Your task to perform on an android device: Clear the shopping cart on target. Image 0: 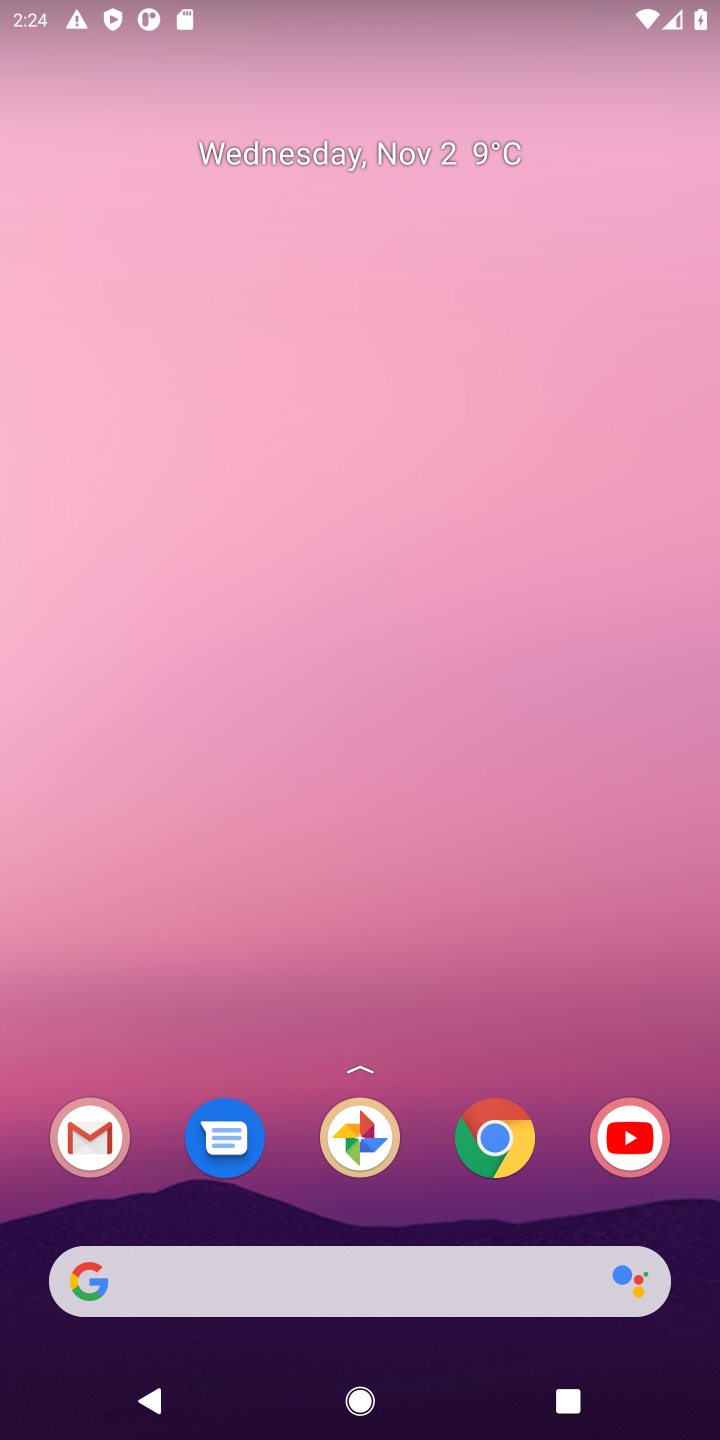
Step 0: click (498, 1149)
Your task to perform on an android device: Clear the shopping cart on target. Image 1: 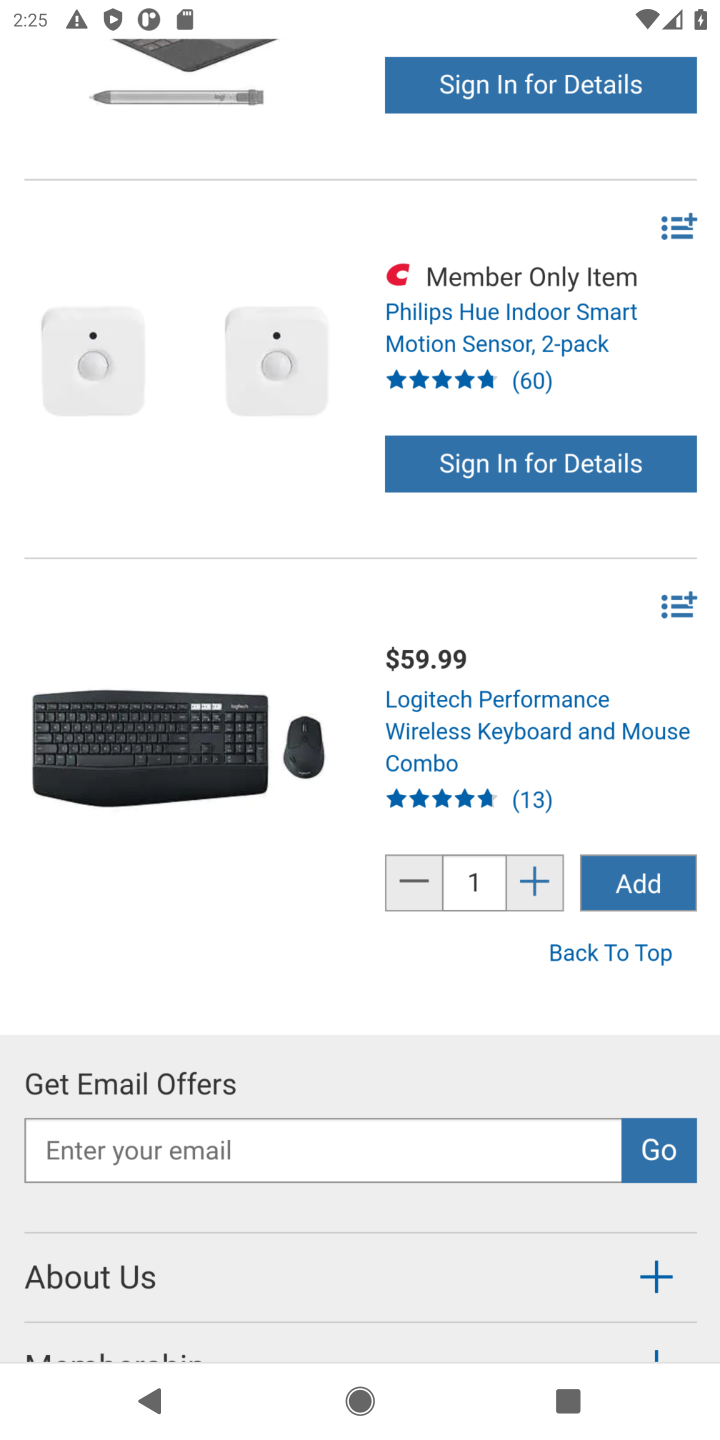
Step 1: click (498, 1149)
Your task to perform on an android device: Clear the shopping cart on target. Image 2: 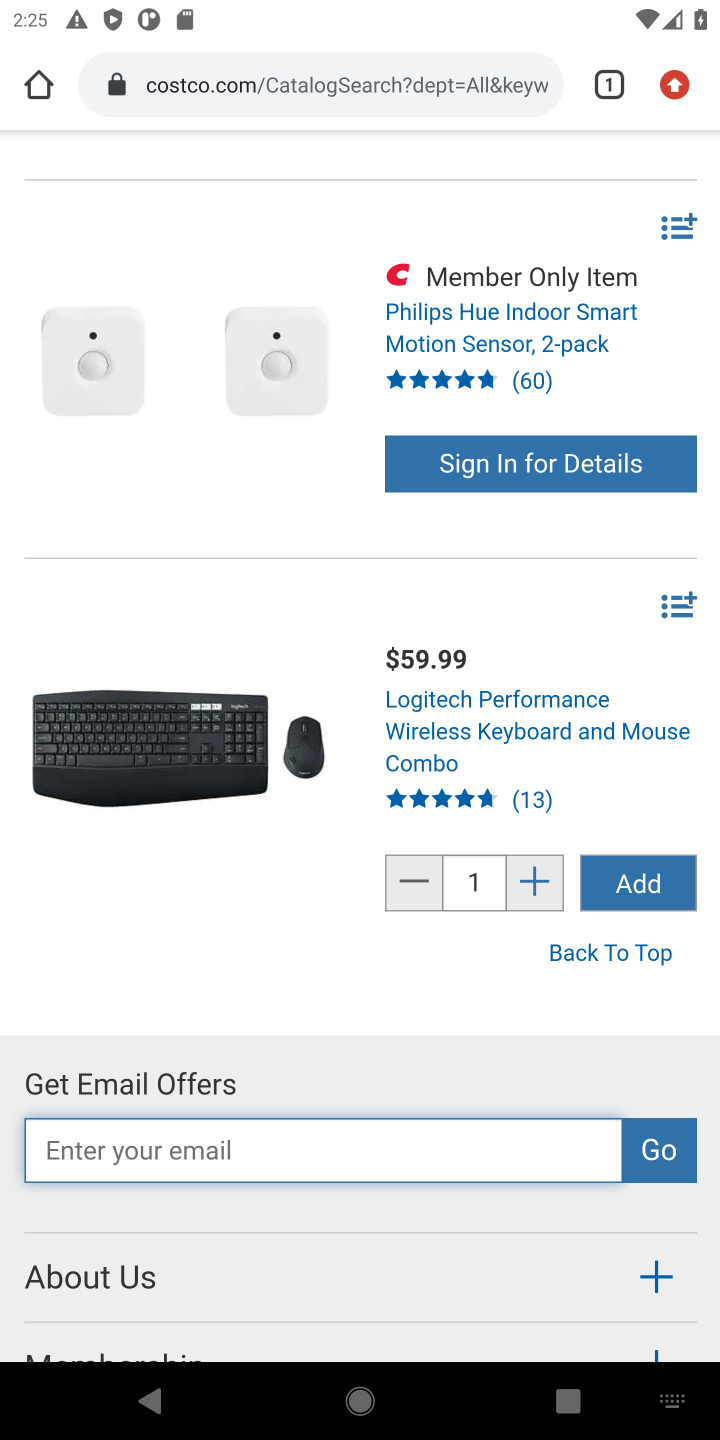
Step 2: click (348, 66)
Your task to perform on an android device: Clear the shopping cart on target. Image 3: 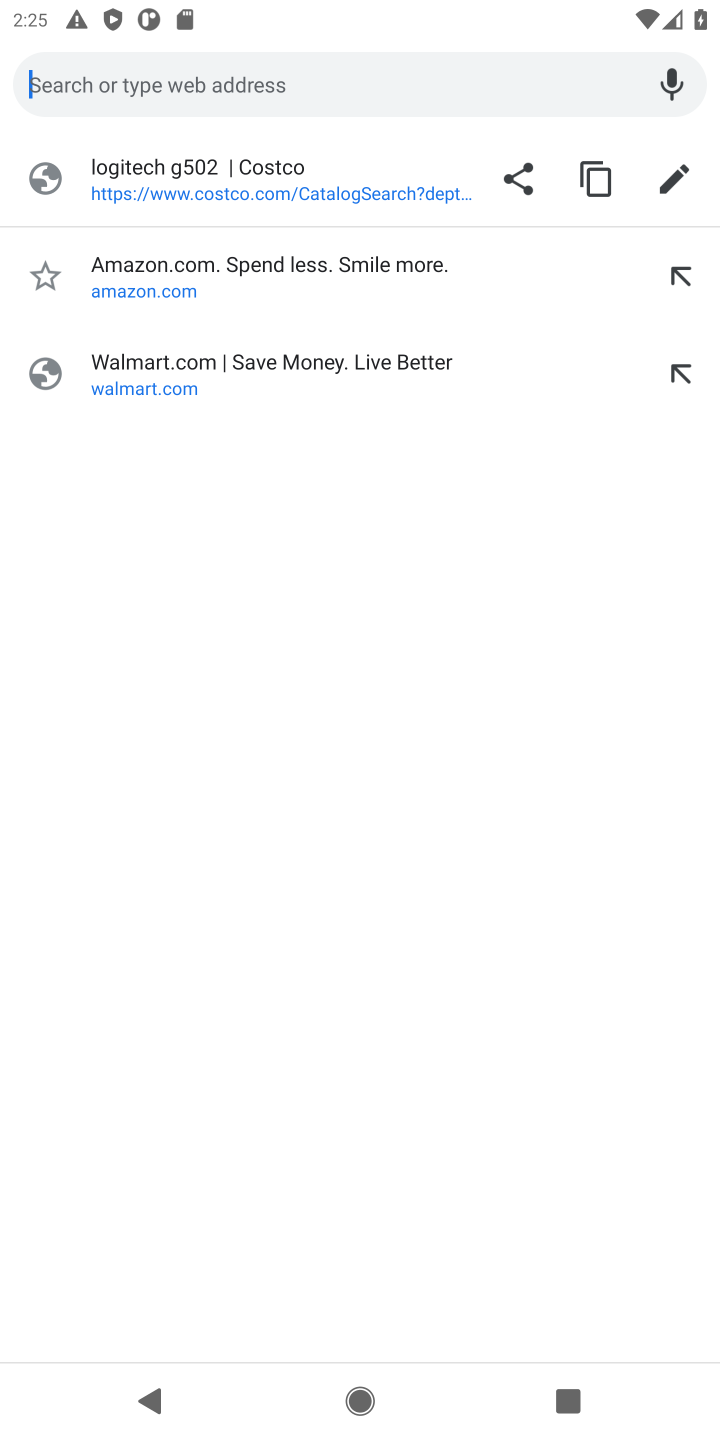
Step 3: type "target"
Your task to perform on an android device: Clear the shopping cart on target. Image 4: 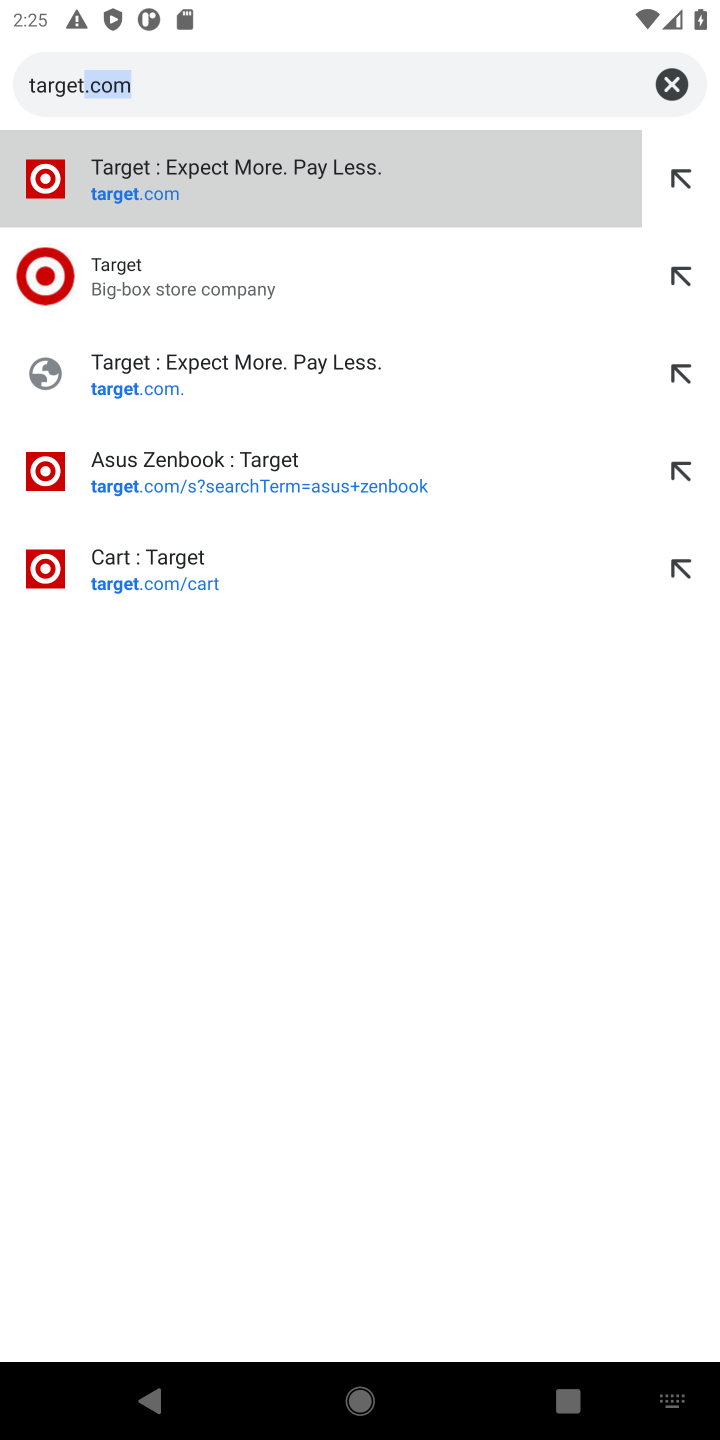
Step 4: click (246, 284)
Your task to perform on an android device: Clear the shopping cart on target. Image 5: 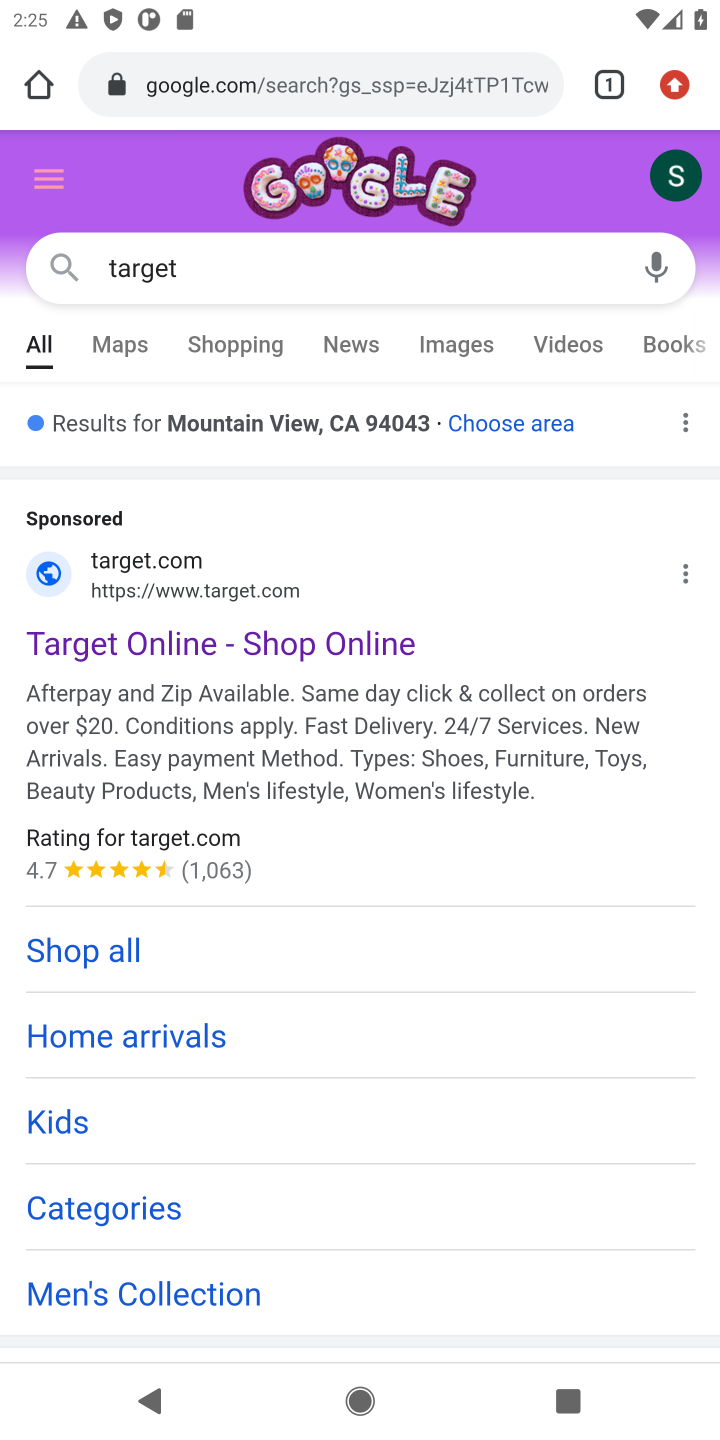
Step 5: click (200, 648)
Your task to perform on an android device: Clear the shopping cart on target. Image 6: 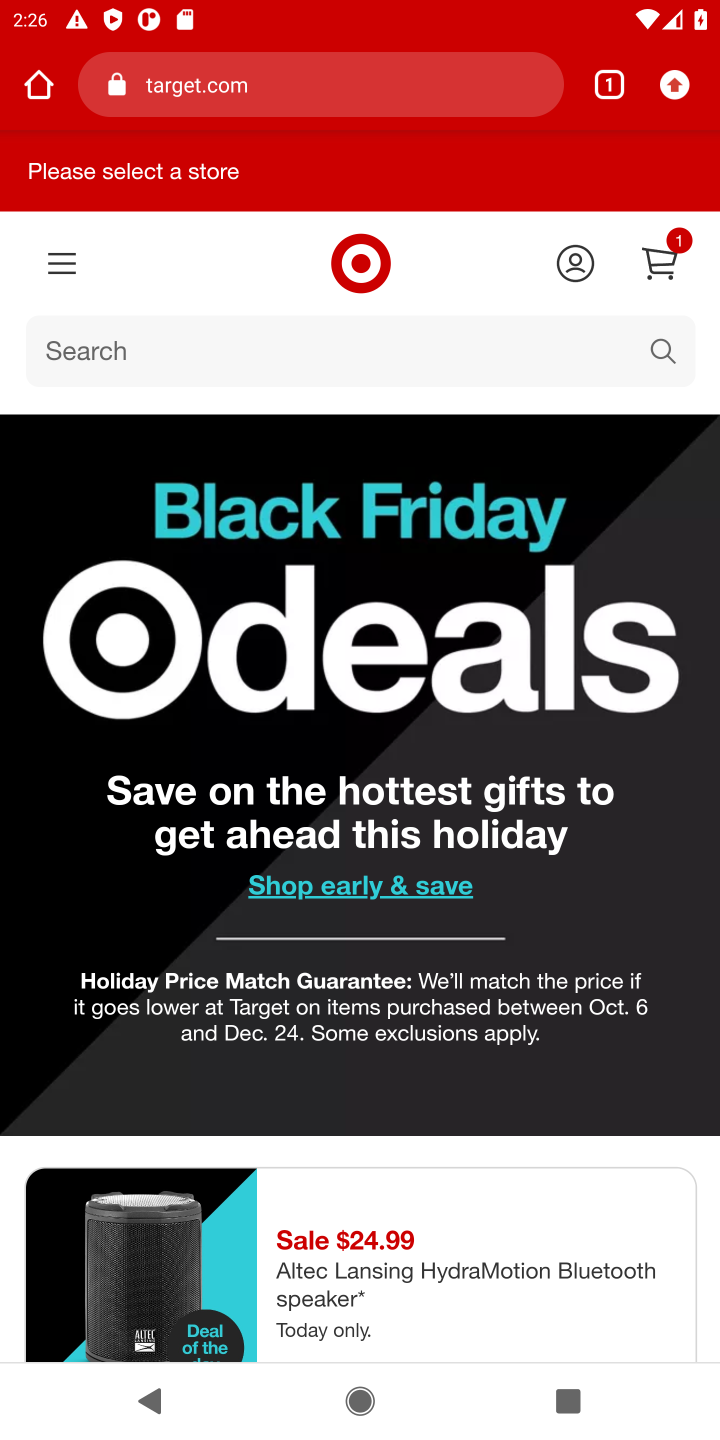
Step 6: click (663, 248)
Your task to perform on an android device: Clear the shopping cart on target. Image 7: 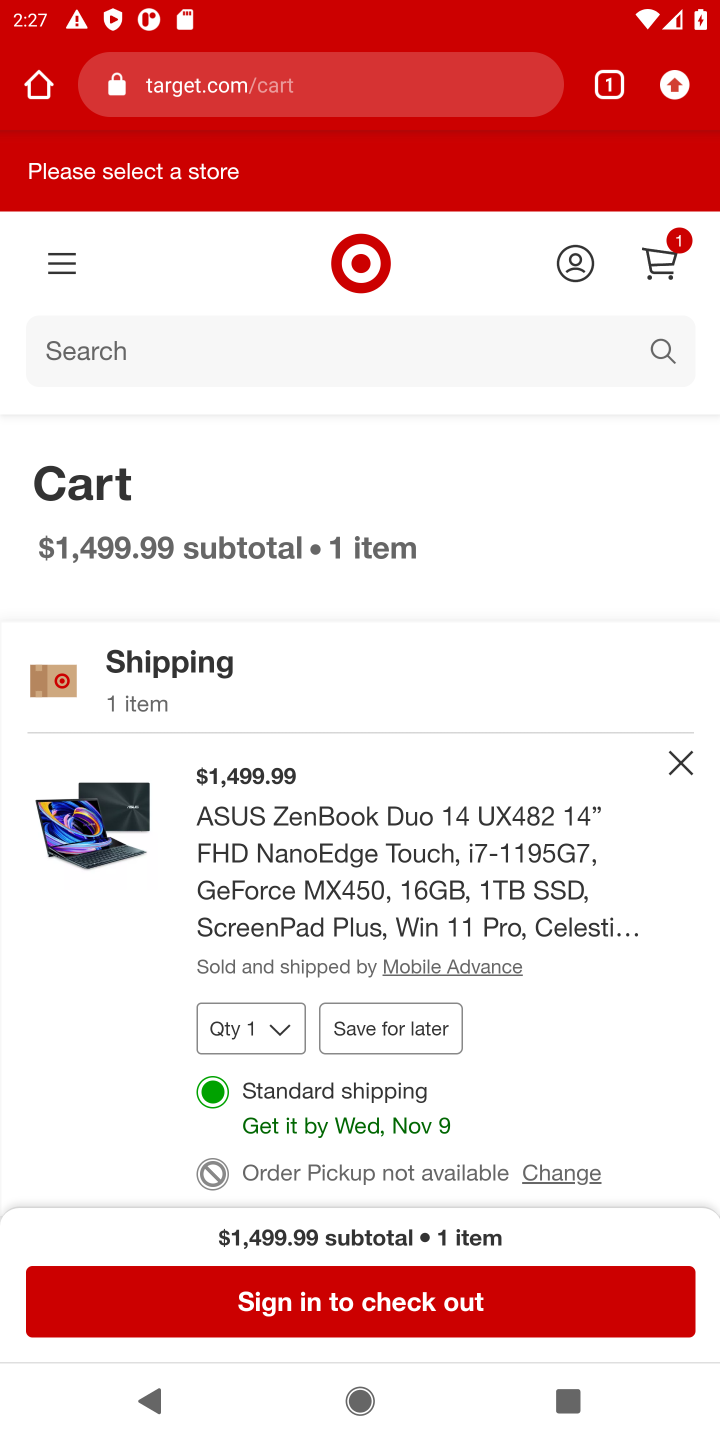
Step 7: click (663, 761)
Your task to perform on an android device: Clear the shopping cart on target. Image 8: 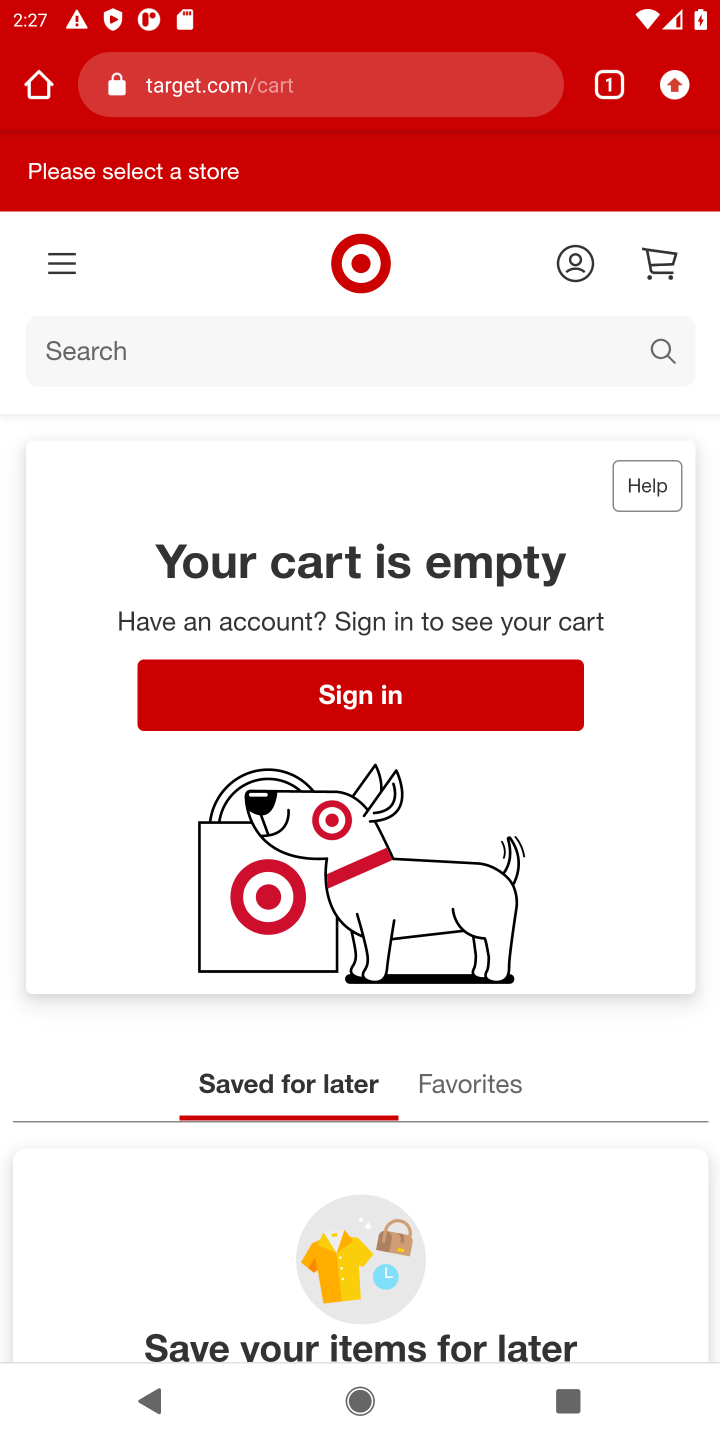
Step 8: task complete